Your task to perform on an android device: turn on the 12-hour format for clock Image 0: 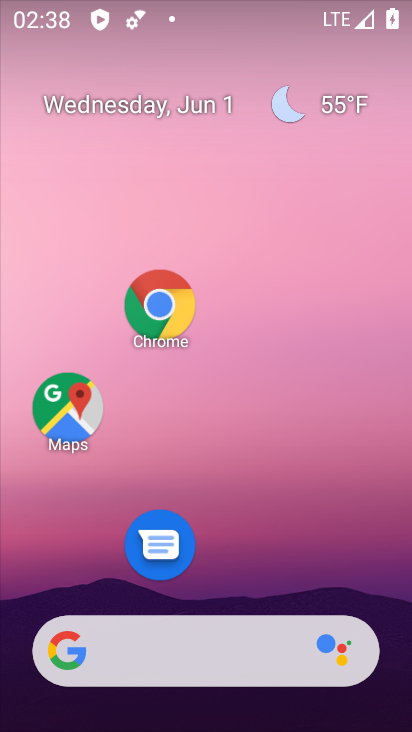
Step 0: drag from (230, 530) to (208, 15)
Your task to perform on an android device: turn on the 12-hour format for clock Image 1: 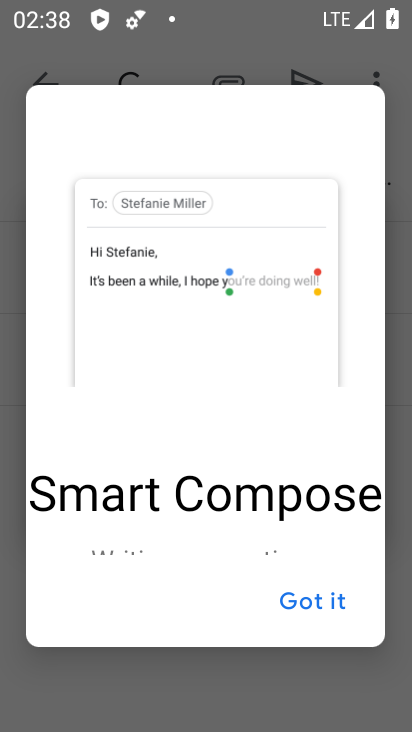
Step 1: press home button
Your task to perform on an android device: turn on the 12-hour format for clock Image 2: 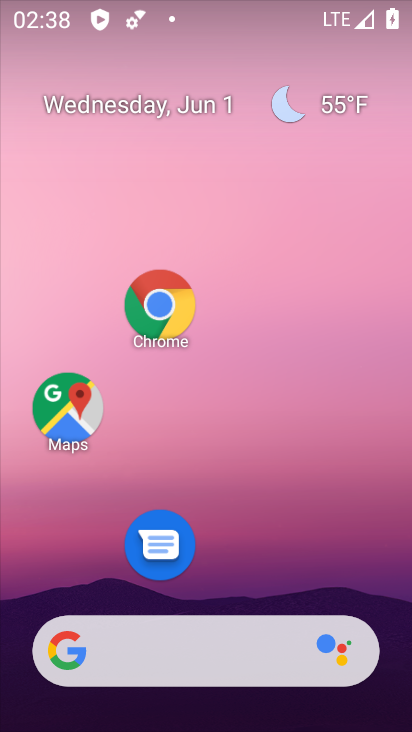
Step 2: drag from (233, 592) to (204, 0)
Your task to perform on an android device: turn on the 12-hour format for clock Image 3: 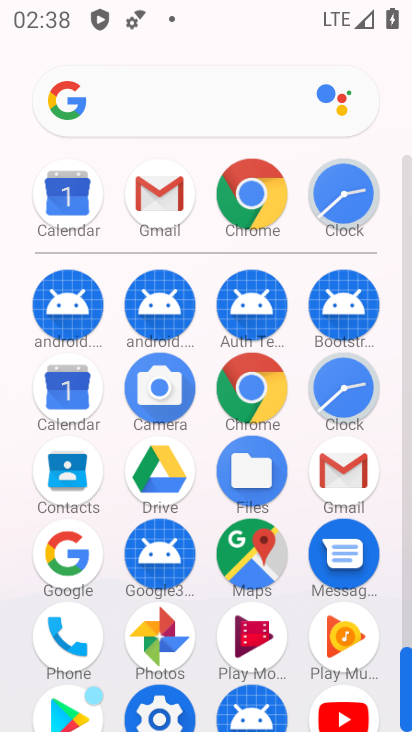
Step 3: drag from (195, 619) to (180, 313)
Your task to perform on an android device: turn on the 12-hour format for clock Image 4: 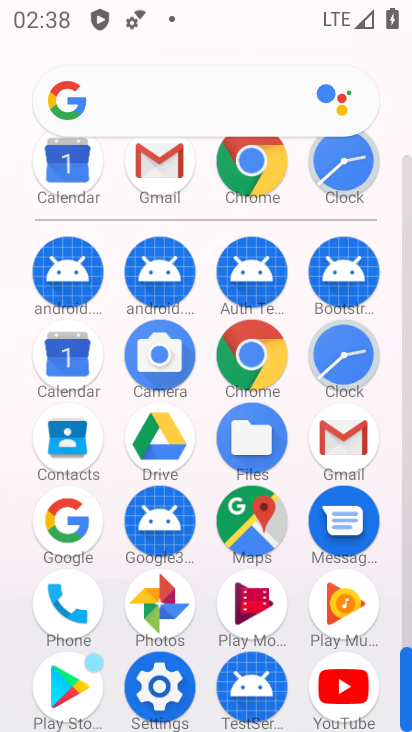
Step 4: click (352, 348)
Your task to perform on an android device: turn on the 12-hour format for clock Image 5: 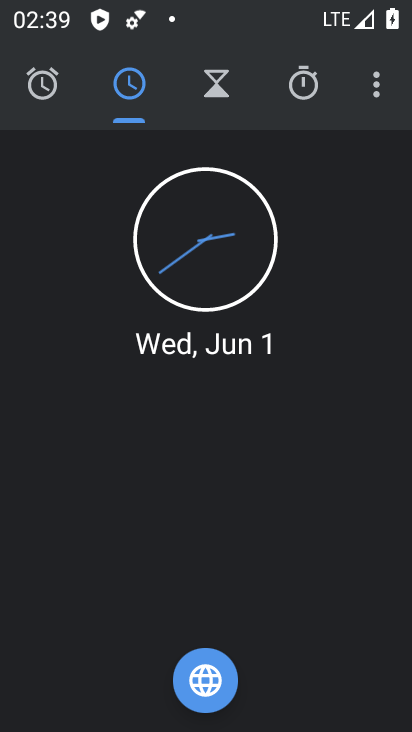
Step 5: click (368, 83)
Your task to perform on an android device: turn on the 12-hour format for clock Image 6: 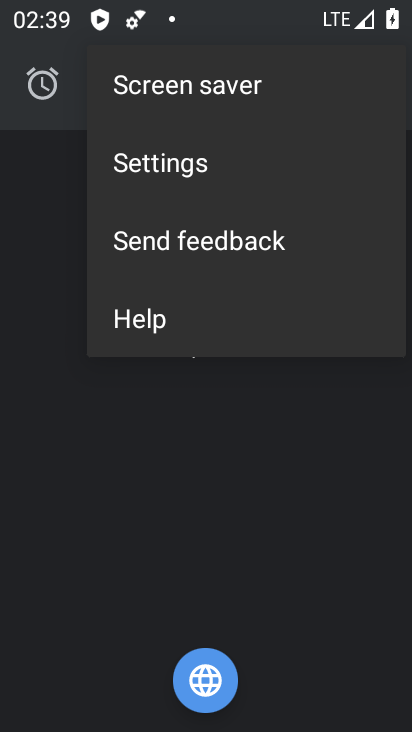
Step 6: click (225, 171)
Your task to perform on an android device: turn on the 12-hour format for clock Image 7: 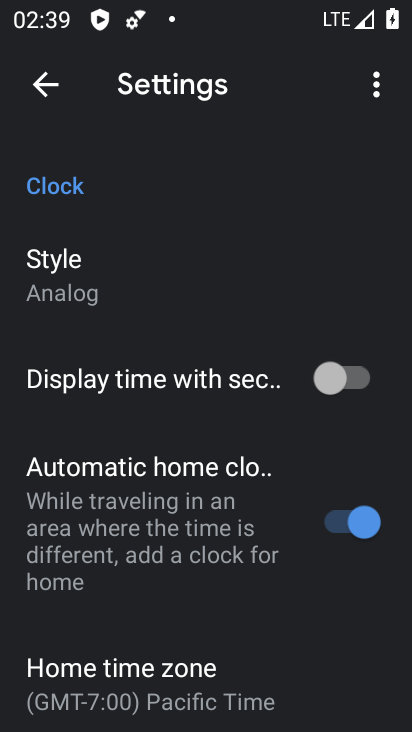
Step 7: drag from (242, 644) to (231, 404)
Your task to perform on an android device: turn on the 12-hour format for clock Image 8: 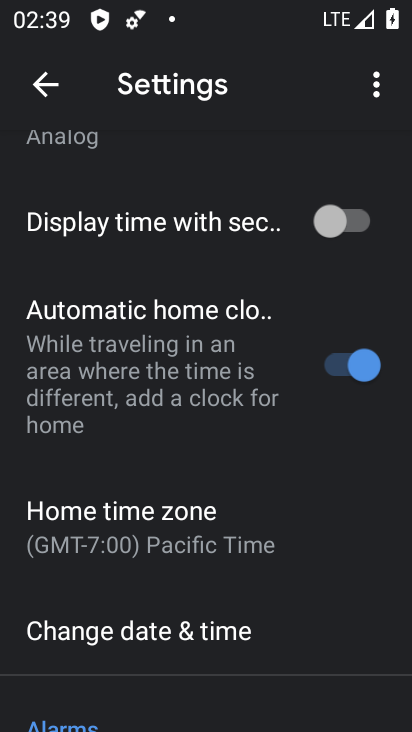
Step 8: drag from (173, 542) to (165, 261)
Your task to perform on an android device: turn on the 12-hour format for clock Image 9: 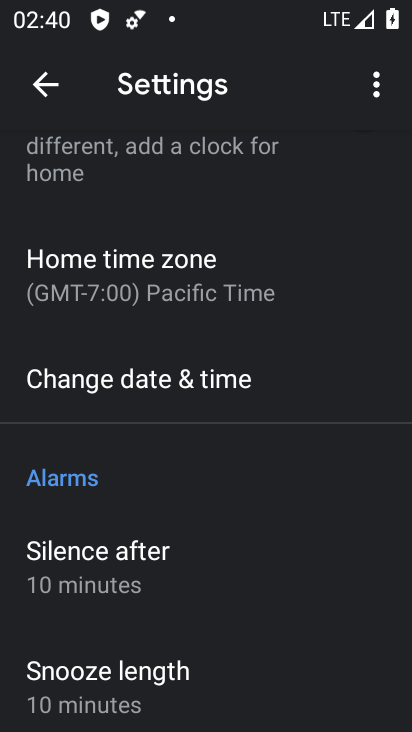
Step 9: drag from (225, 578) to (219, 227)
Your task to perform on an android device: turn on the 12-hour format for clock Image 10: 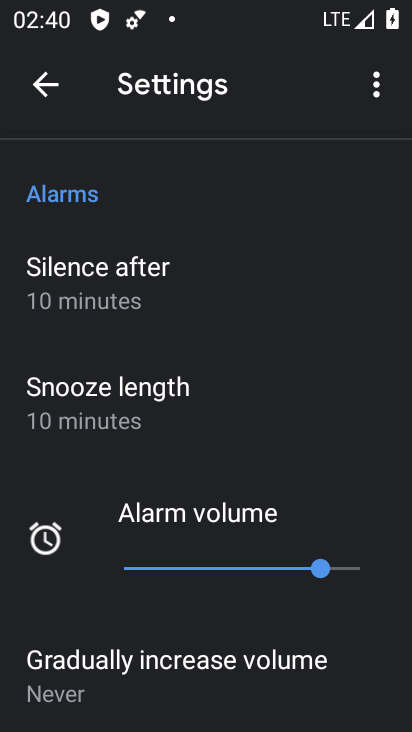
Step 10: drag from (256, 575) to (247, 239)
Your task to perform on an android device: turn on the 12-hour format for clock Image 11: 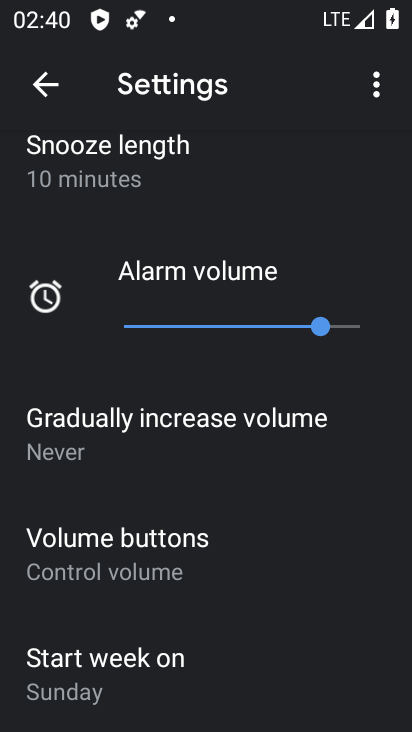
Step 11: drag from (240, 510) to (218, 234)
Your task to perform on an android device: turn on the 12-hour format for clock Image 12: 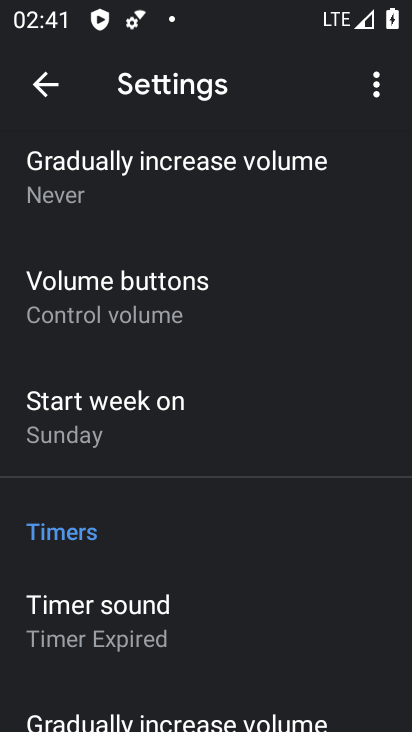
Step 12: drag from (228, 570) to (212, 211)
Your task to perform on an android device: turn on the 12-hour format for clock Image 13: 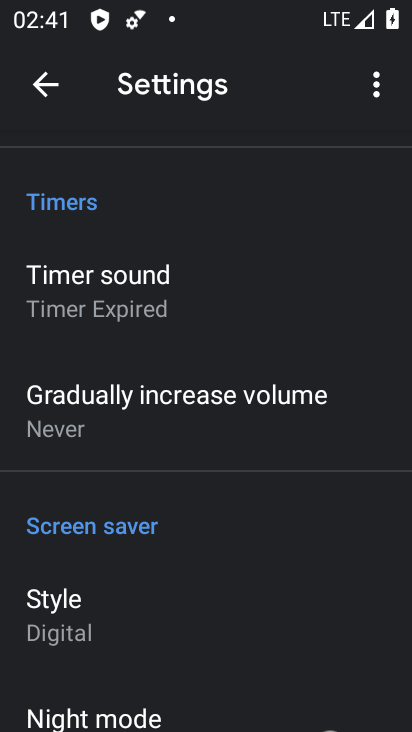
Step 13: drag from (179, 227) to (184, 555)
Your task to perform on an android device: turn on the 12-hour format for clock Image 14: 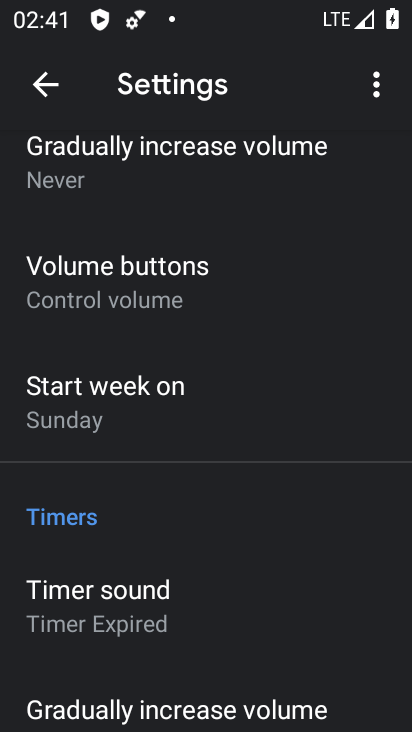
Step 14: drag from (188, 373) to (190, 617)
Your task to perform on an android device: turn on the 12-hour format for clock Image 15: 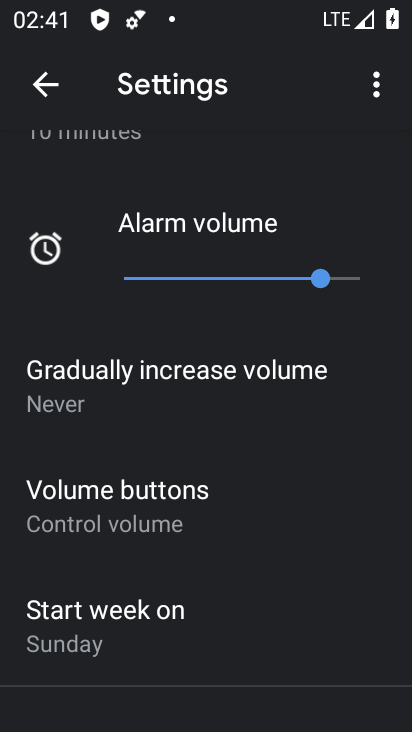
Step 15: drag from (233, 341) to (226, 693)
Your task to perform on an android device: turn on the 12-hour format for clock Image 16: 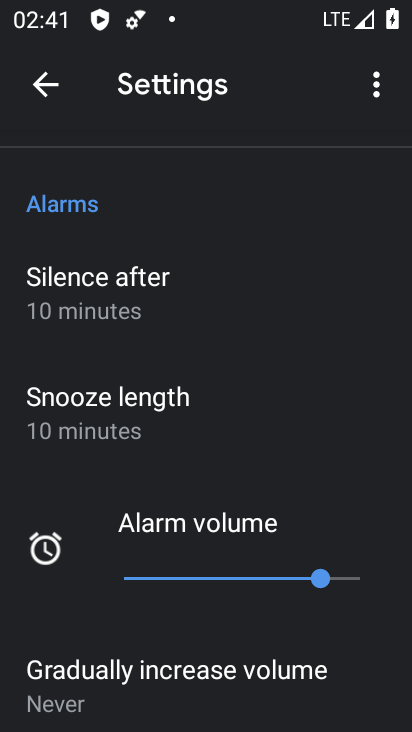
Step 16: drag from (158, 342) to (160, 731)
Your task to perform on an android device: turn on the 12-hour format for clock Image 17: 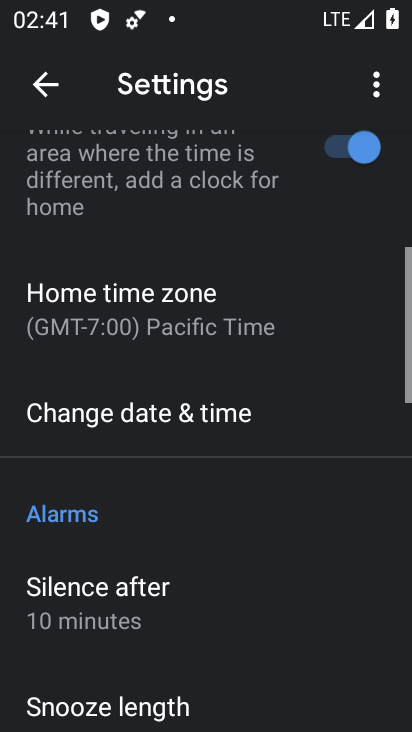
Step 17: click (116, 400)
Your task to perform on an android device: turn on the 12-hour format for clock Image 18: 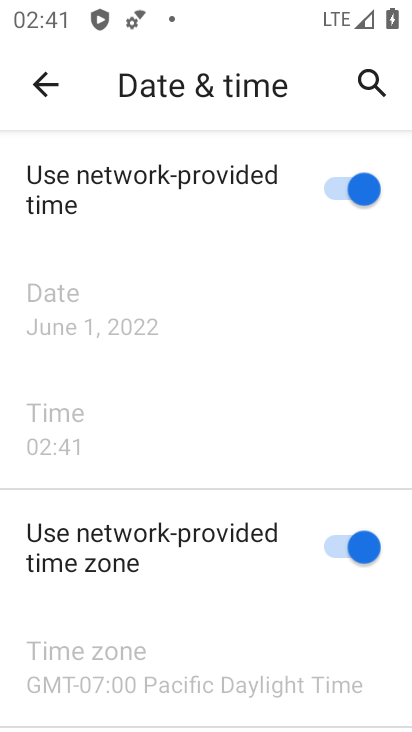
Step 18: click (253, 376)
Your task to perform on an android device: turn on the 12-hour format for clock Image 19: 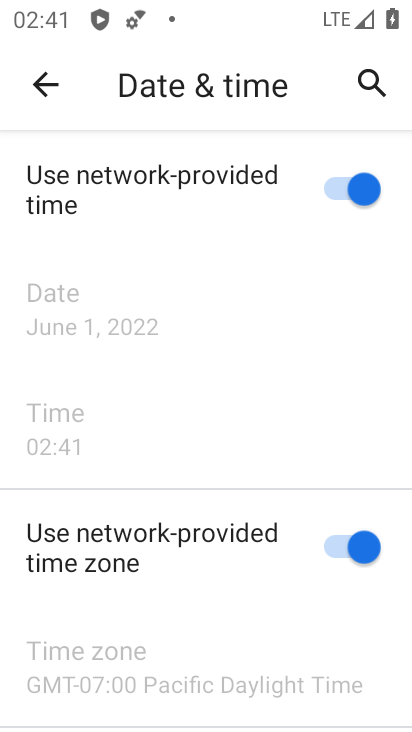
Step 19: task complete